Your task to perform on an android device: turn off picture-in-picture Image 0: 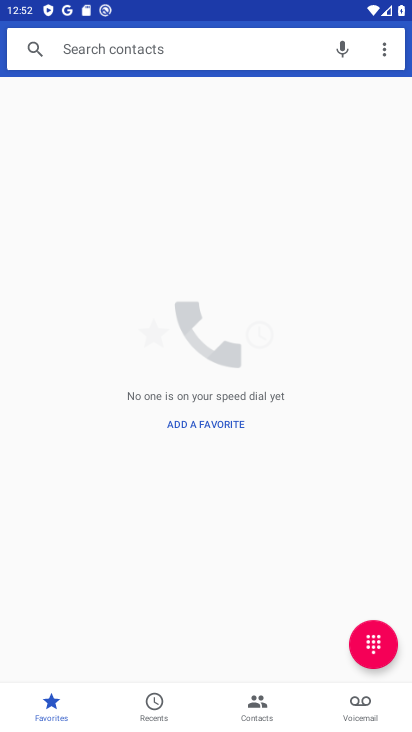
Step 0: press home button
Your task to perform on an android device: turn off picture-in-picture Image 1: 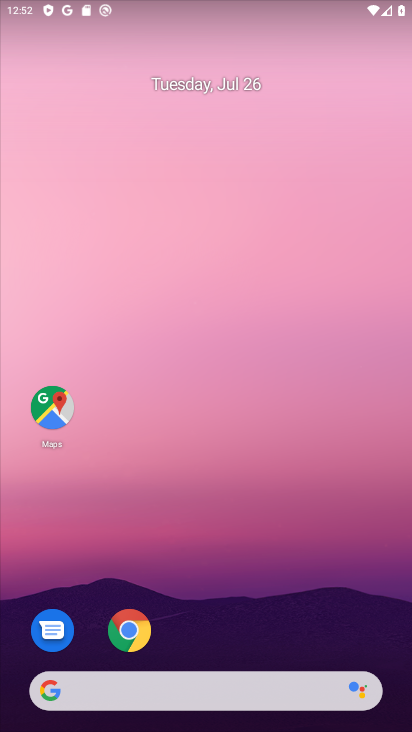
Step 1: drag from (173, 373) to (177, 137)
Your task to perform on an android device: turn off picture-in-picture Image 2: 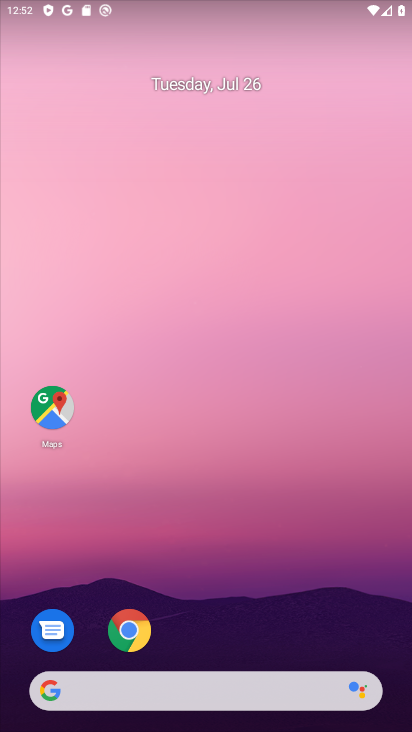
Step 2: click (219, 135)
Your task to perform on an android device: turn off picture-in-picture Image 3: 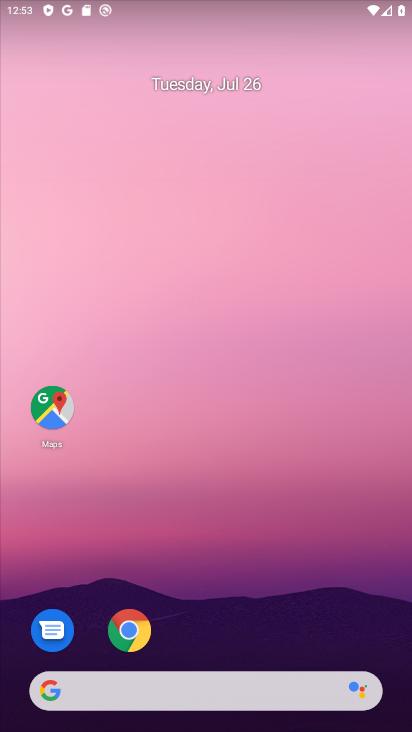
Step 3: drag from (192, 622) to (205, 245)
Your task to perform on an android device: turn off picture-in-picture Image 4: 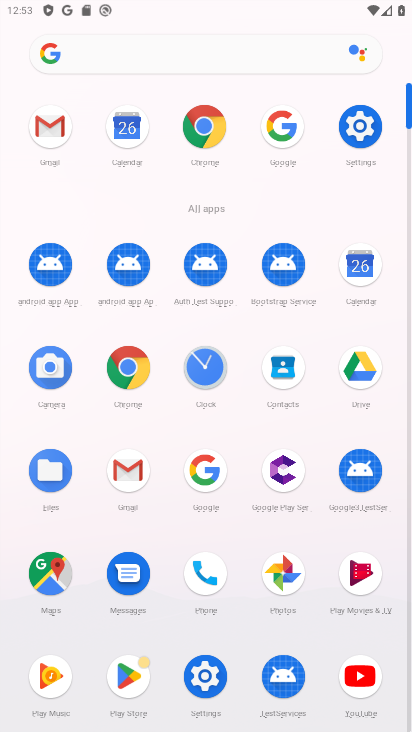
Step 4: click (361, 135)
Your task to perform on an android device: turn off picture-in-picture Image 5: 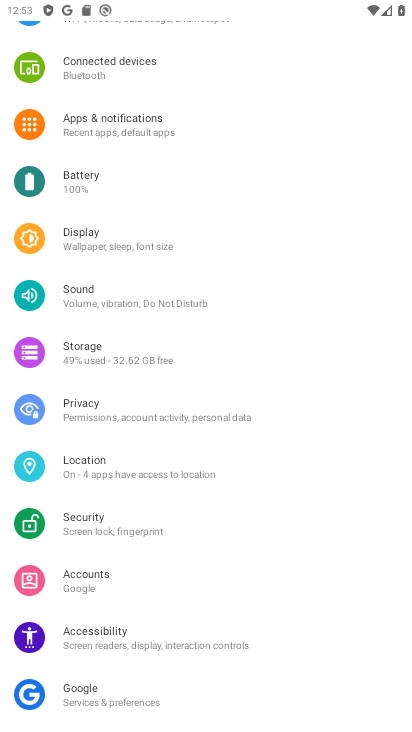
Step 5: click (81, 136)
Your task to perform on an android device: turn off picture-in-picture Image 6: 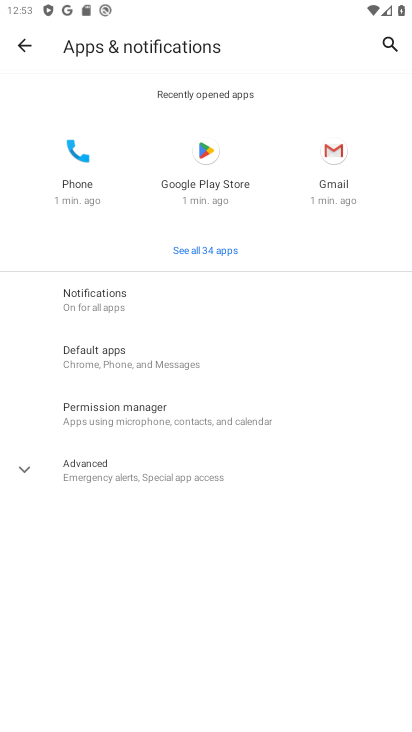
Step 6: click (71, 484)
Your task to perform on an android device: turn off picture-in-picture Image 7: 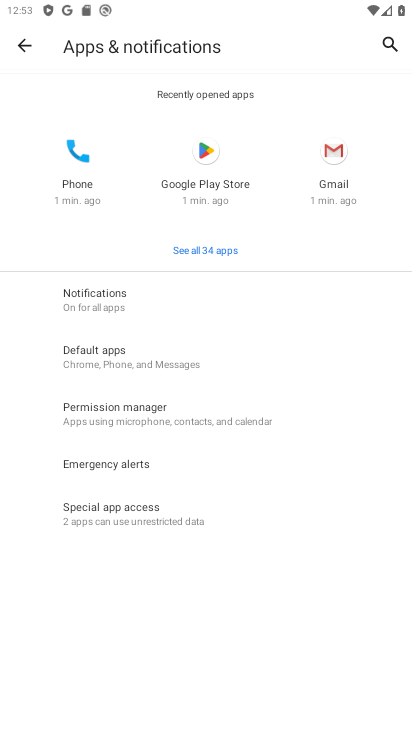
Step 7: click (89, 520)
Your task to perform on an android device: turn off picture-in-picture Image 8: 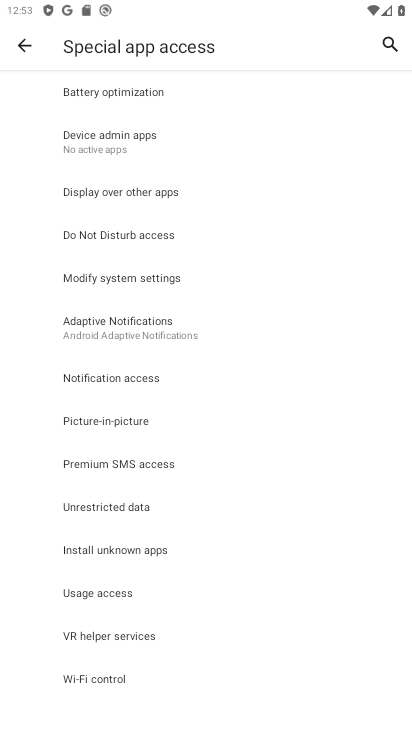
Step 8: click (107, 422)
Your task to perform on an android device: turn off picture-in-picture Image 9: 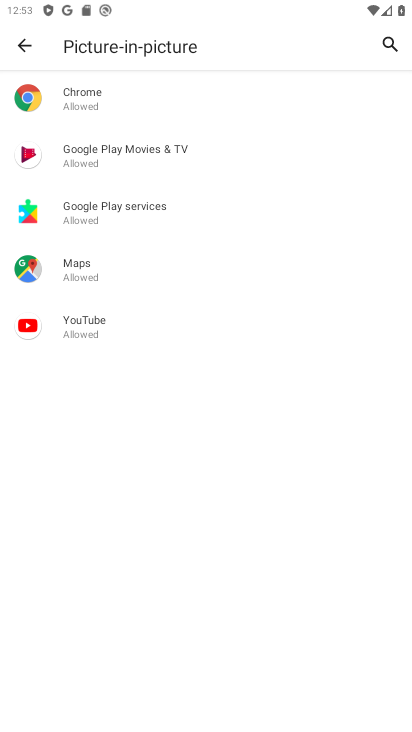
Step 9: click (104, 100)
Your task to perform on an android device: turn off picture-in-picture Image 10: 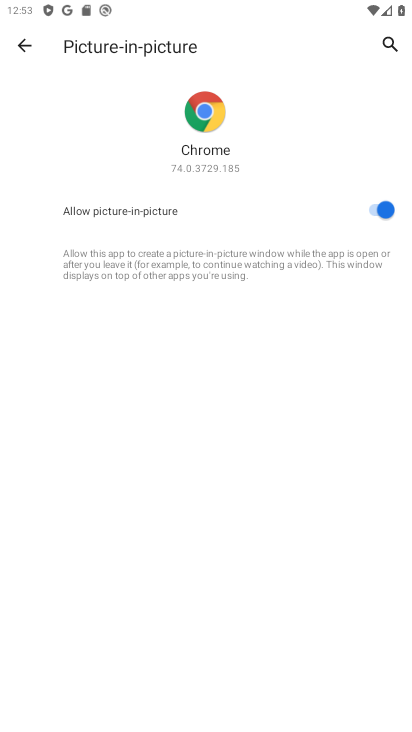
Step 10: click (370, 204)
Your task to perform on an android device: turn off picture-in-picture Image 11: 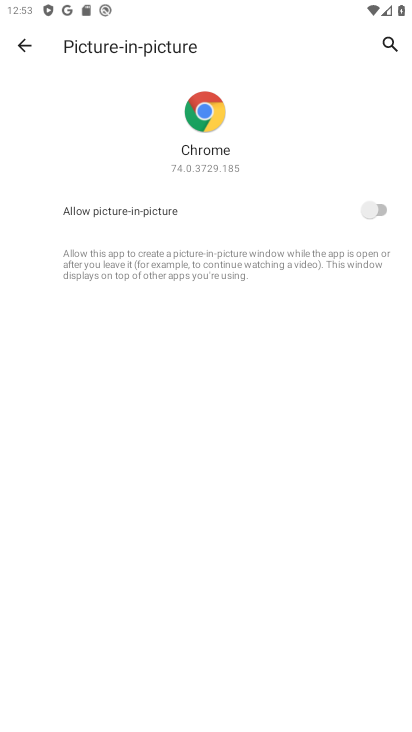
Step 11: task complete